Your task to perform on an android device: stop showing notifications on the lock screen Image 0: 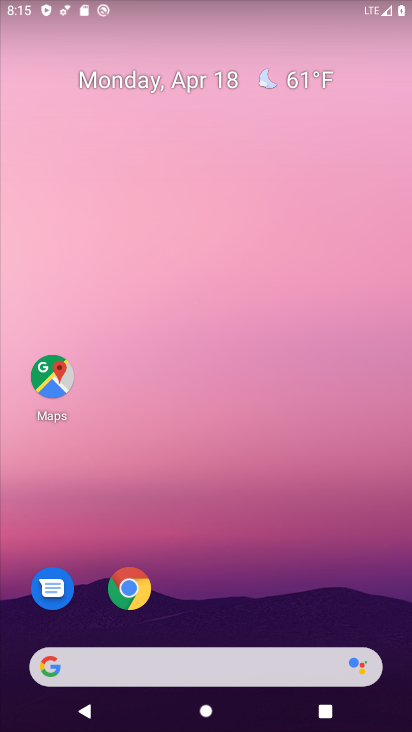
Step 0: drag from (378, 631) to (306, 101)
Your task to perform on an android device: stop showing notifications on the lock screen Image 1: 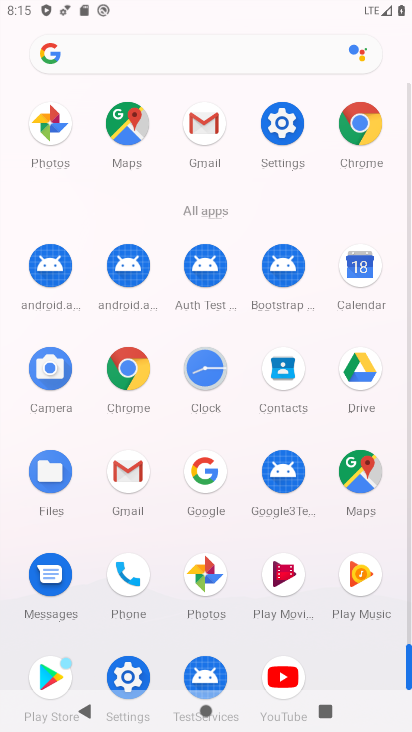
Step 1: click (128, 673)
Your task to perform on an android device: stop showing notifications on the lock screen Image 2: 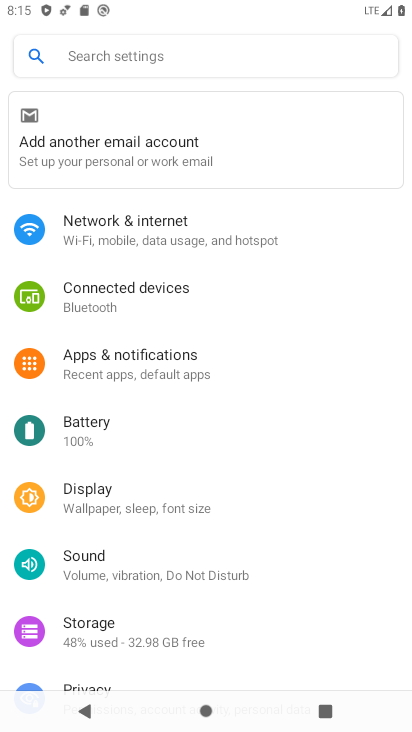
Step 2: click (116, 355)
Your task to perform on an android device: stop showing notifications on the lock screen Image 3: 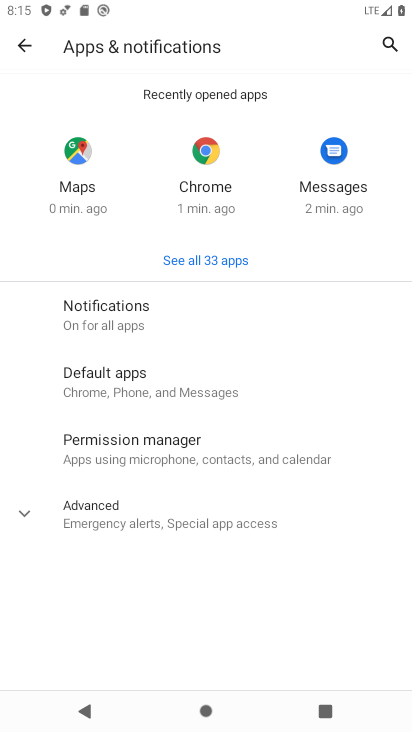
Step 3: click (18, 511)
Your task to perform on an android device: stop showing notifications on the lock screen Image 4: 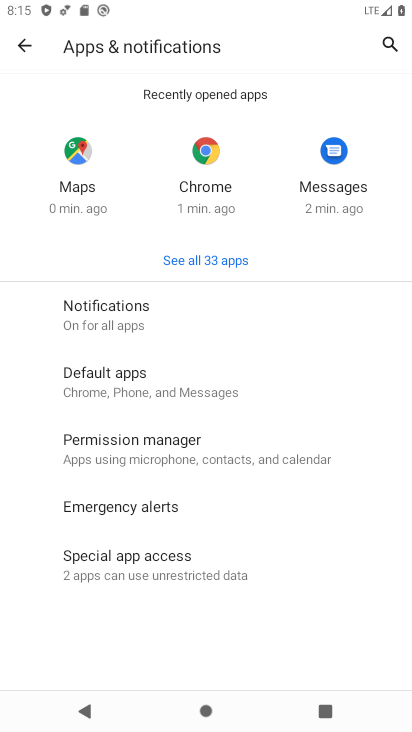
Step 4: click (94, 311)
Your task to perform on an android device: stop showing notifications on the lock screen Image 5: 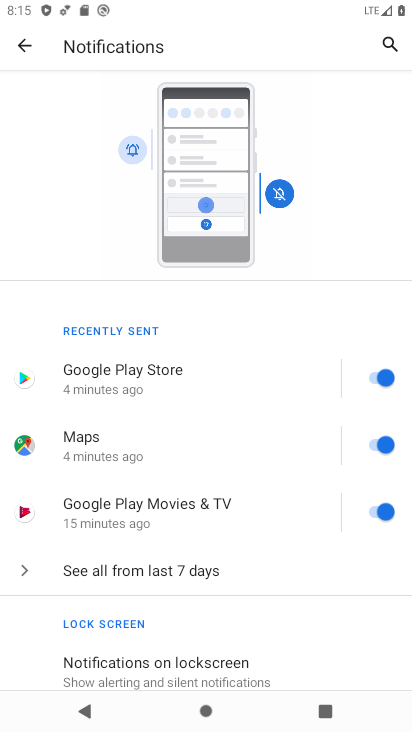
Step 5: drag from (324, 589) to (353, 234)
Your task to perform on an android device: stop showing notifications on the lock screen Image 6: 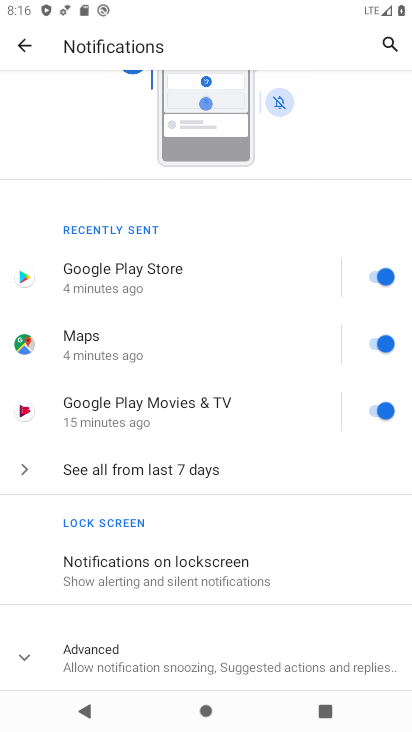
Step 6: click (116, 569)
Your task to perform on an android device: stop showing notifications on the lock screen Image 7: 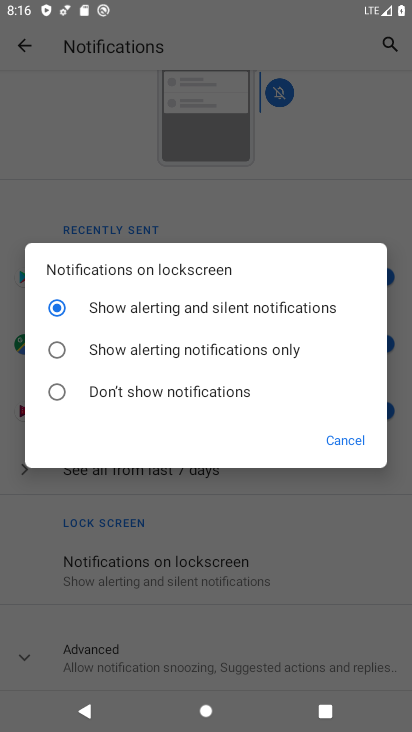
Step 7: click (56, 392)
Your task to perform on an android device: stop showing notifications on the lock screen Image 8: 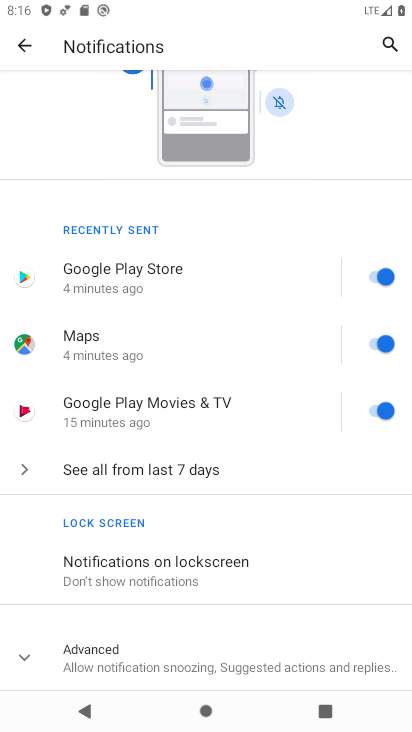
Step 8: task complete